Your task to perform on an android device: Go to Google maps Image 0: 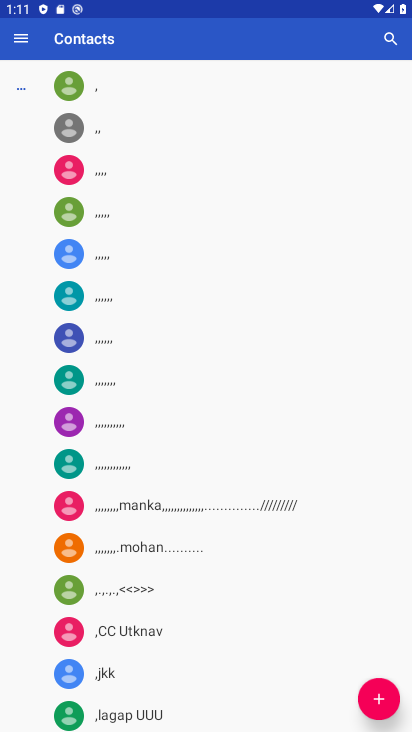
Step 0: press home button
Your task to perform on an android device: Go to Google maps Image 1: 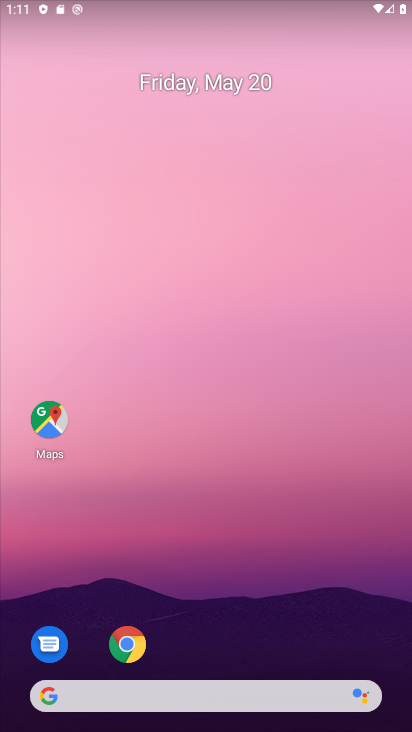
Step 1: click (56, 433)
Your task to perform on an android device: Go to Google maps Image 2: 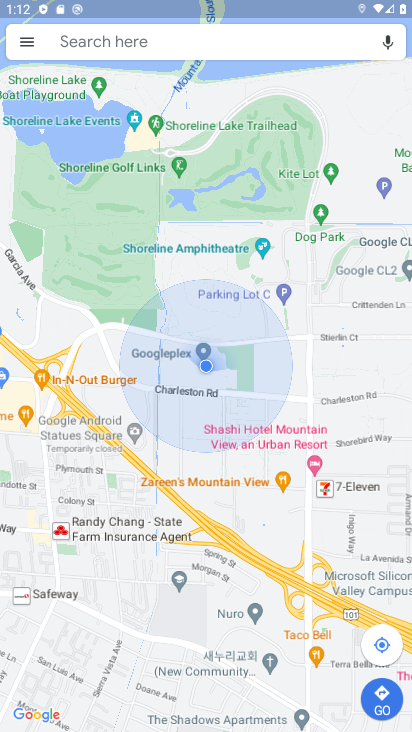
Step 2: task complete